Your task to perform on an android device: Open Google Maps Image 0: 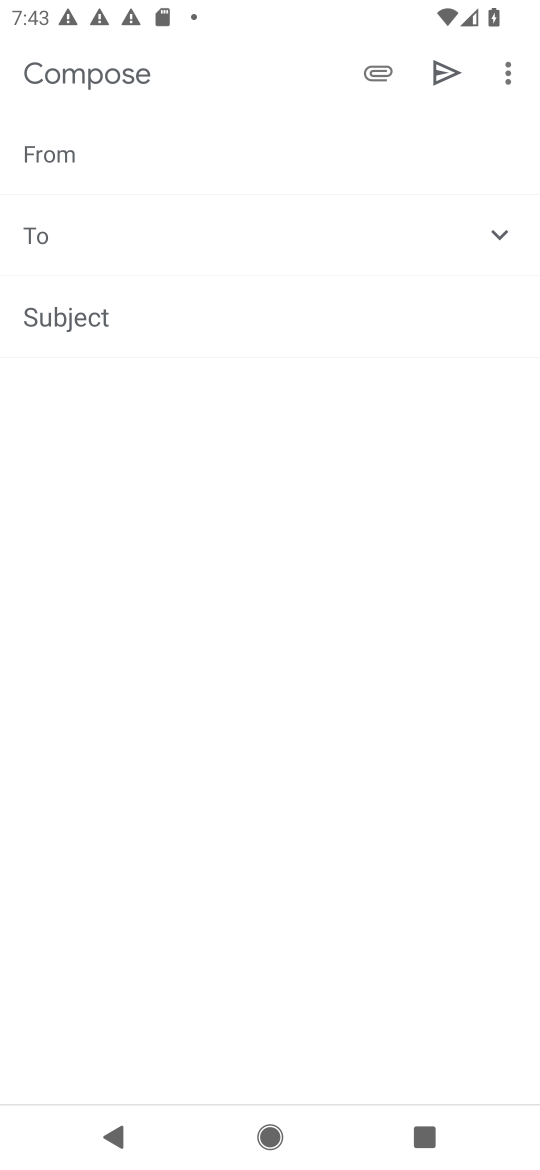
Step 0: press home button
Your task to perform on an android device: Open Google Maps Image 1: 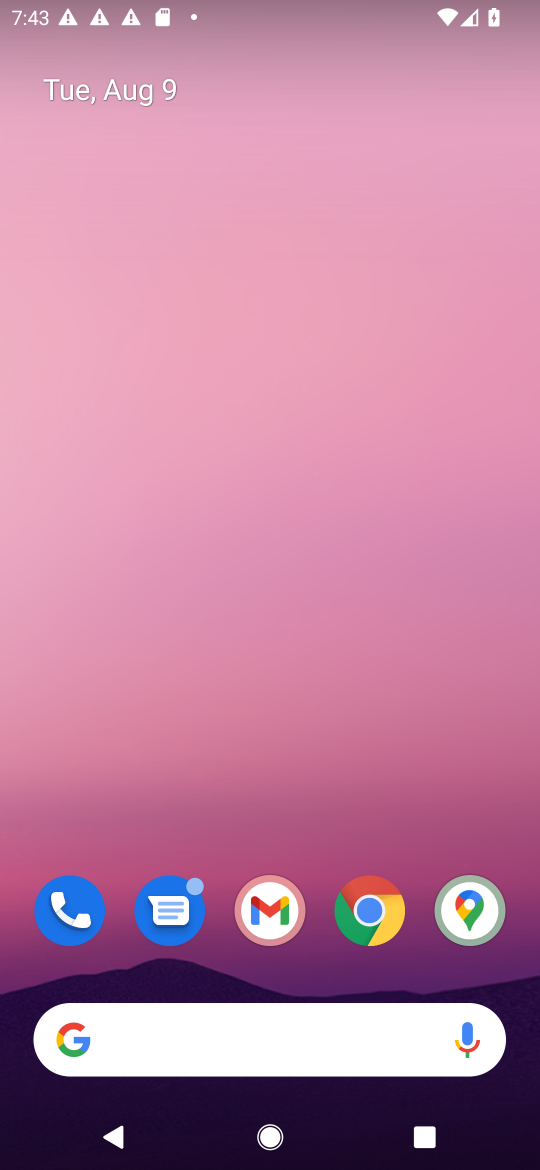
Step 1: drag from (280, 879) to (354, 369)
Your task to perform on an android device: Open Google Maps Image 2: 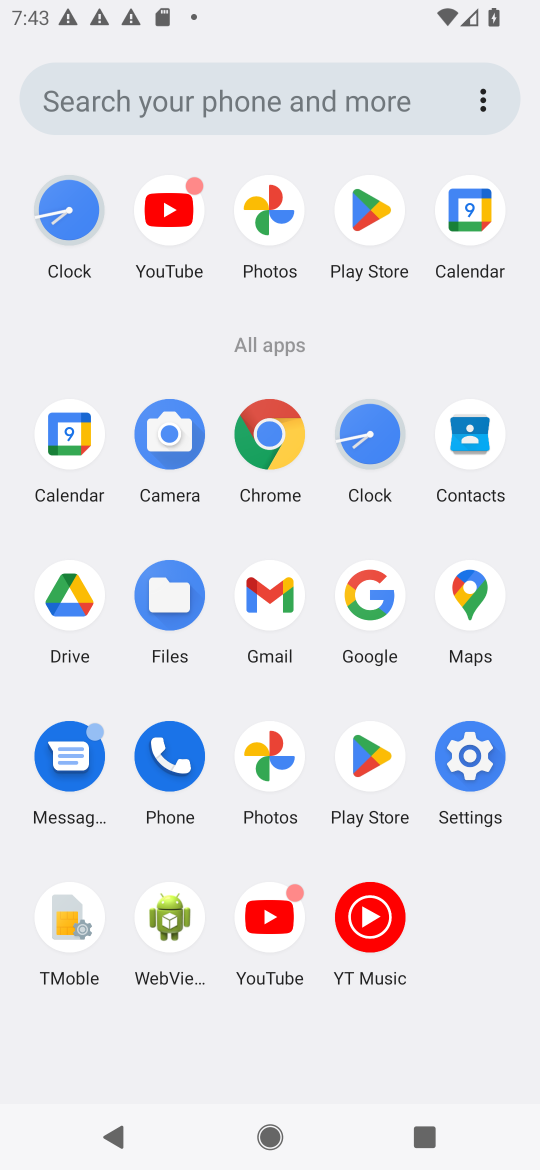
Step 2: click (466, 622)
Your task to perform on an android device: Open Google Maps Image 3: 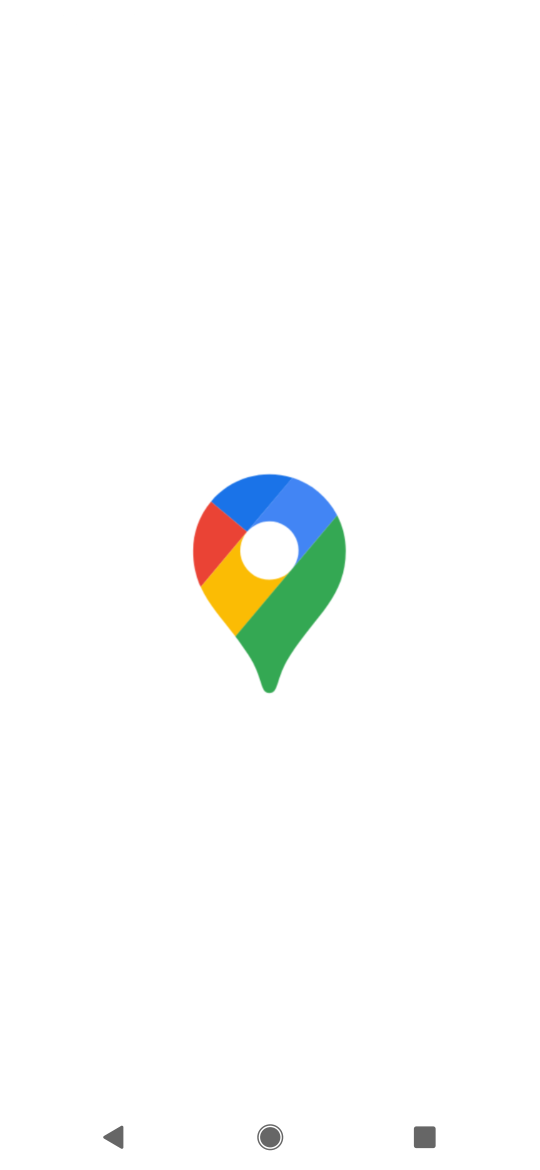
Step 3: task complete